Your task to perform on an android device: install app "DuckDuckGo Privacy Browser" Image 0: 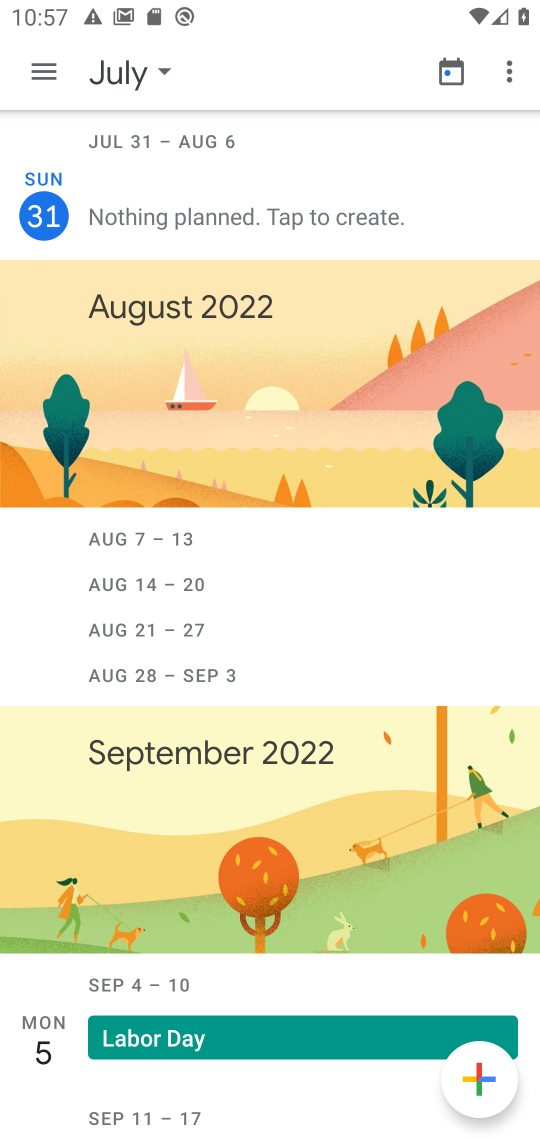
Step 0: press home button
Your task to perform on an android device: install app "DuckDuckGo Privacy Browser" Image 1: 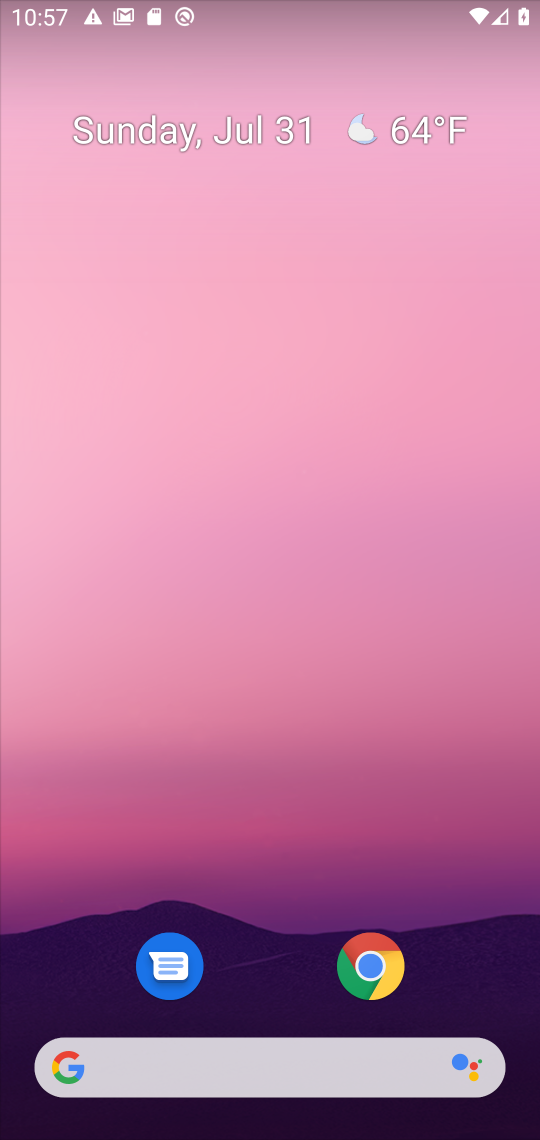
Step 1: drag from (247, 905) to (209, 151)
Your task to perform on an android device: install app "DuckDuckGo Privacy Browser" Image 2: 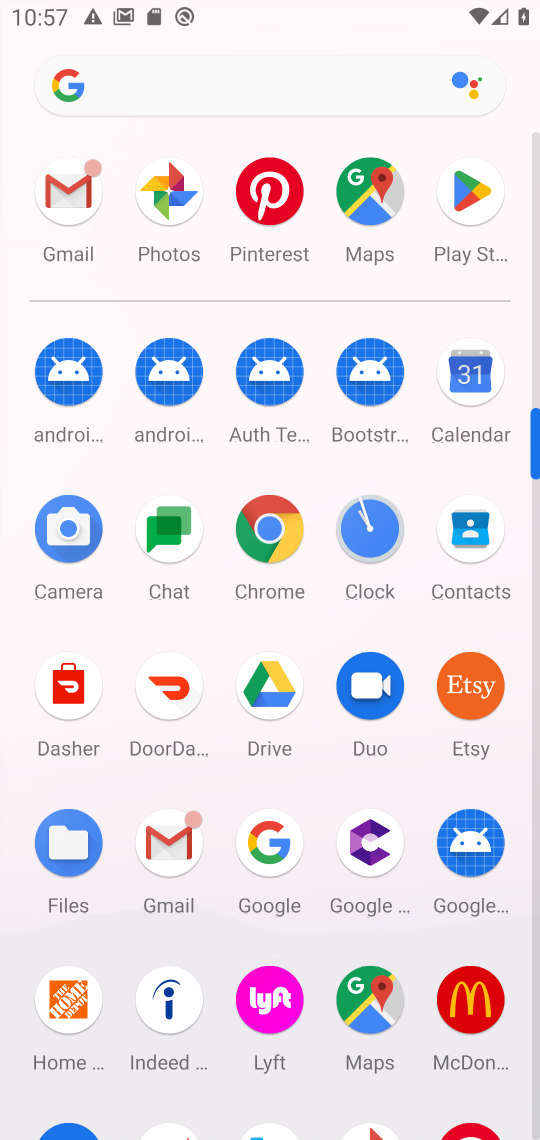
Step 2: drag from (229, 986) to (239, 529)
Your task to perform on an android device: install app "DuckDuckGo Privacy Browser" Image 3: 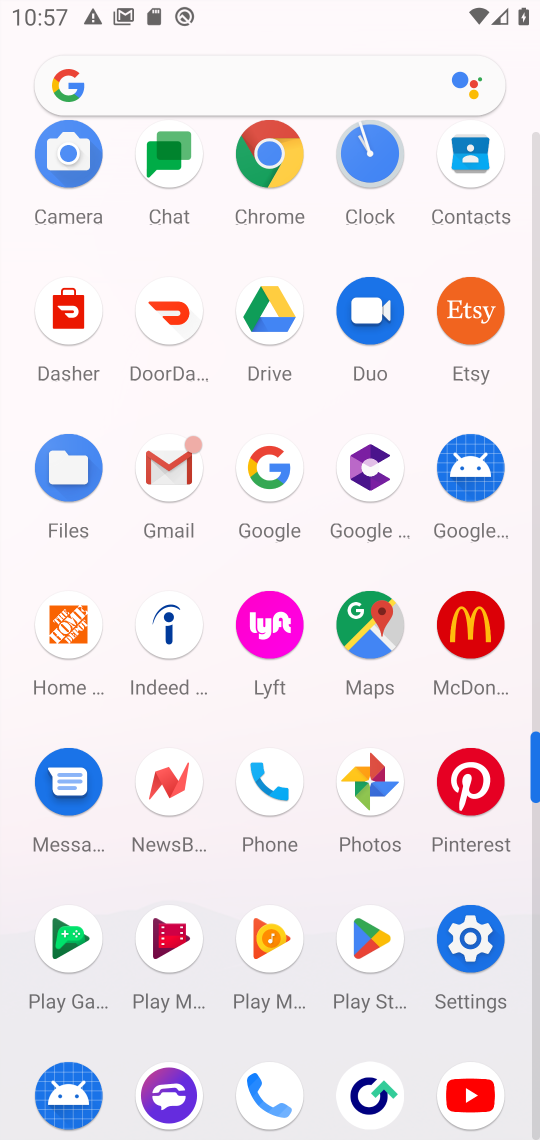
Step 3: click (374, 927)
Your task to perform on an android device: install app "DuckDuckGo Privacy Browser" Image 4: 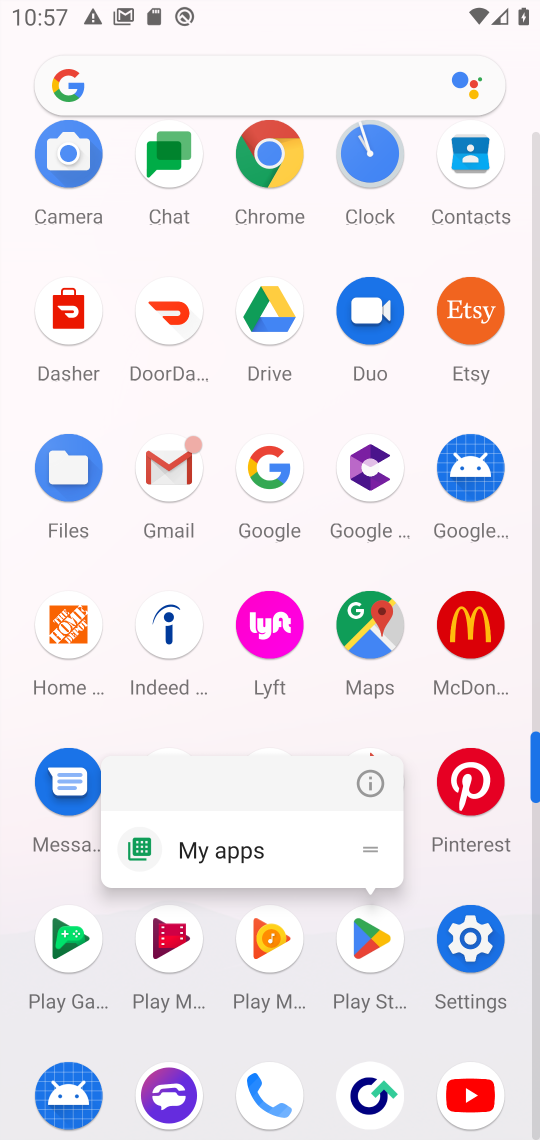
Step 4: click (374, 962)
Your task to perform on an android device: install app "DuckDuckGo Privacy Browser" Image 5: 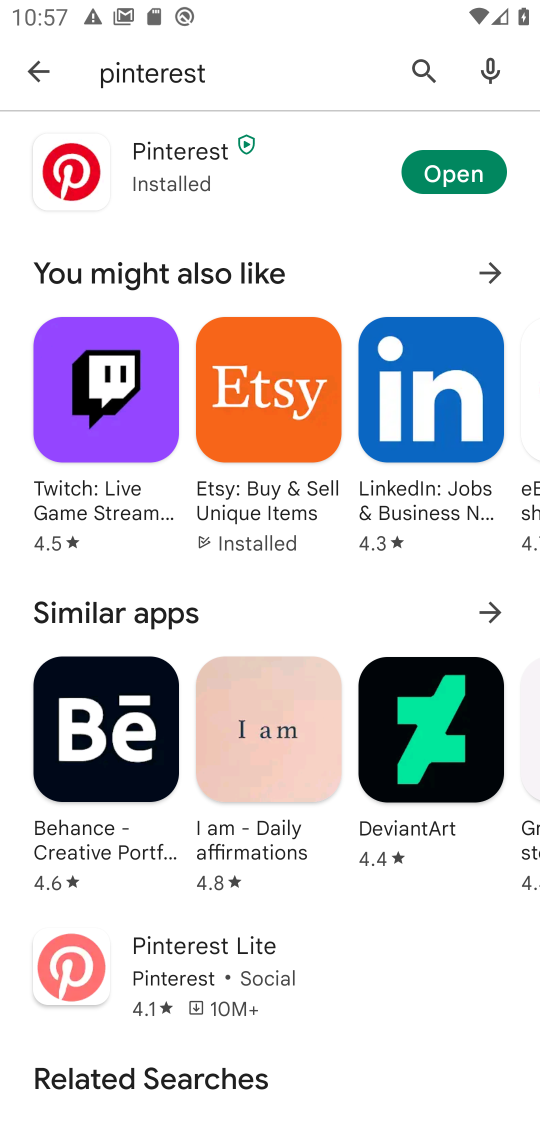
Step 5: click (150, 70)
Your task to perform on an android device: install app "DuckDuckGo Privacy Browser" Image 6: 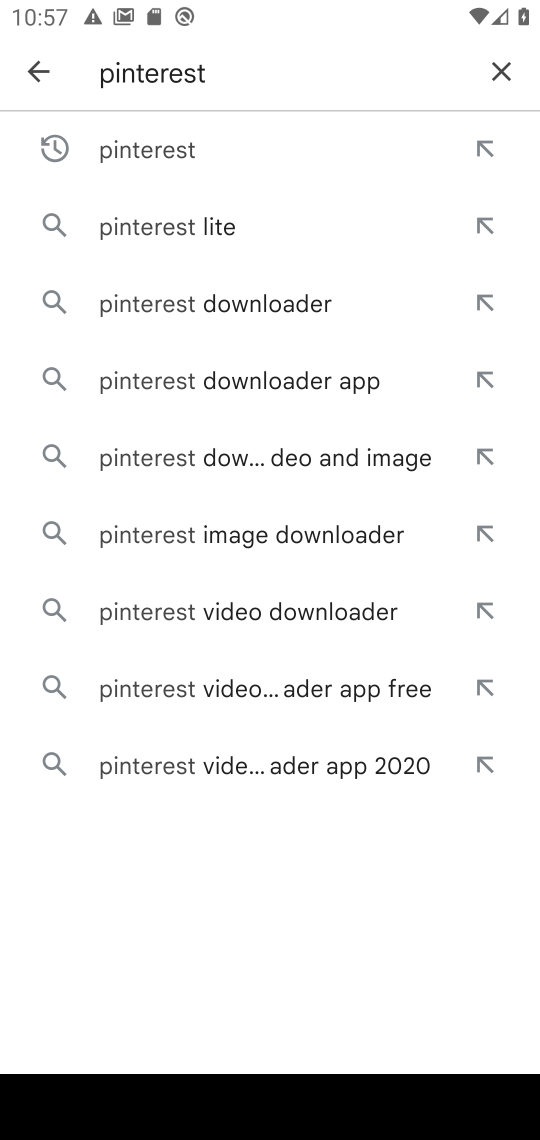
Step 6: click (506, 56)
Your task to perform on an android device: install app "DuckDuckGo Privacy Browser" Image 7: 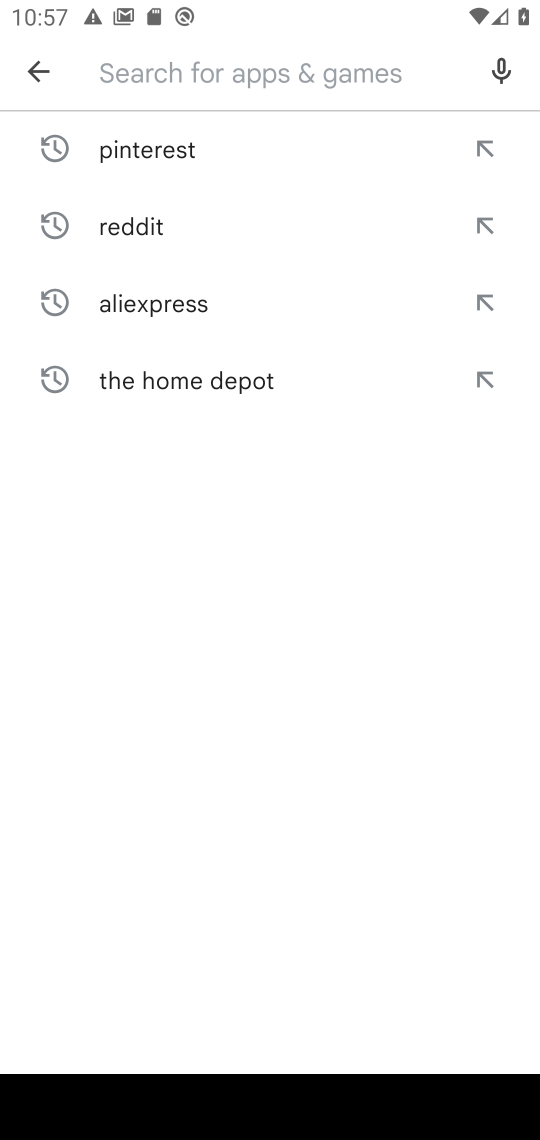
Step 7: type "duckduckgo"
Your task to perform on an android device: install app "DuckDuckGo Privacy Browser" Image 8: 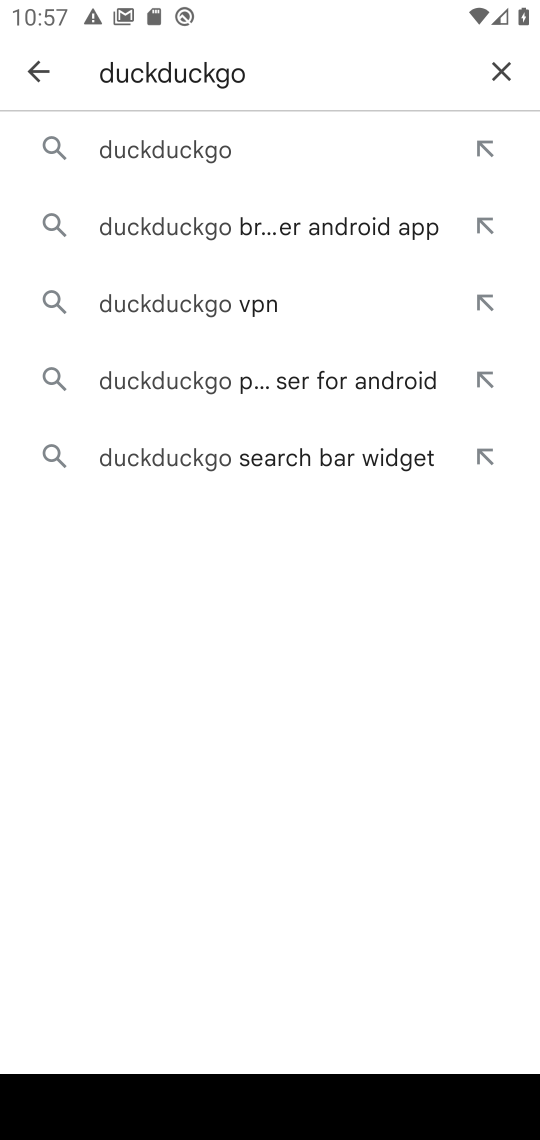
Step 8: click (193, 138)
Your task to perform on an android device: install app "DuckDuckGo Privacy Browser" Image 9: 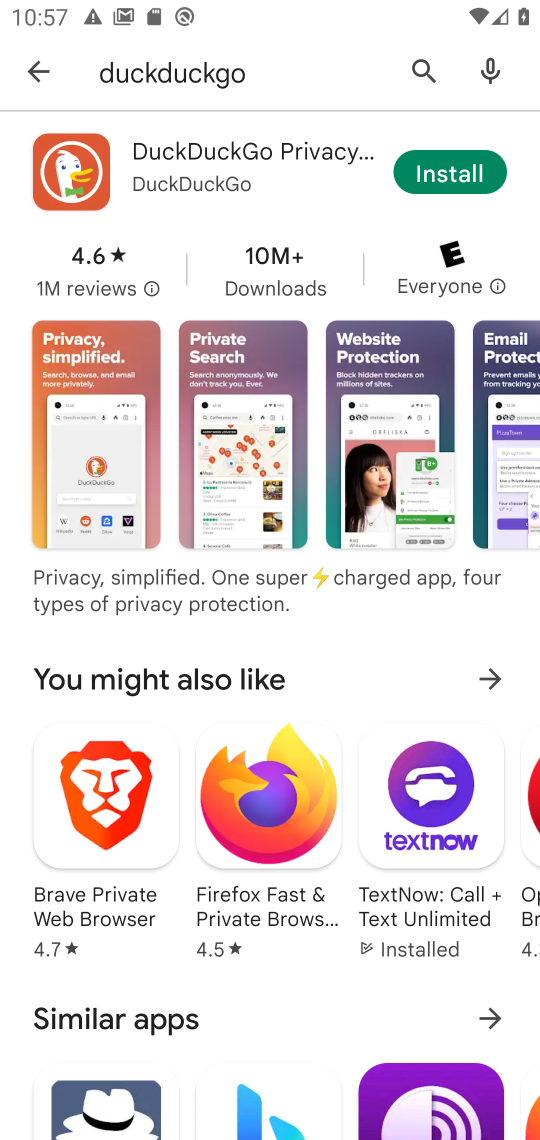
Step 9: click (438, 161)
Your task to perform on an android device: install app "DuckDuckGo Privacy Browser" Image 10: 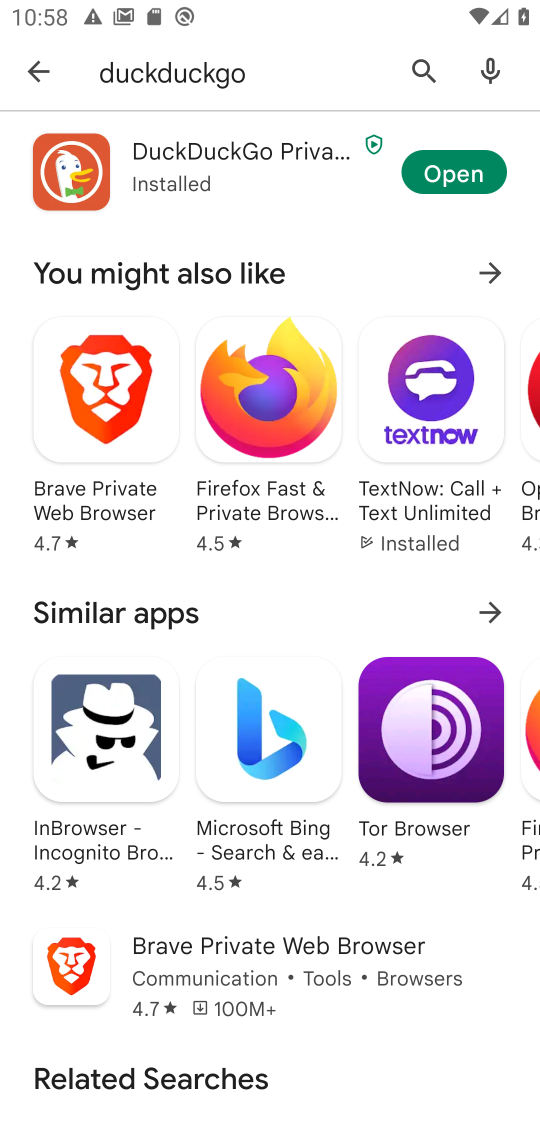
Step 10: task complete